Your task to perform on an android device: Do I have any events tomorrow? Image 0: 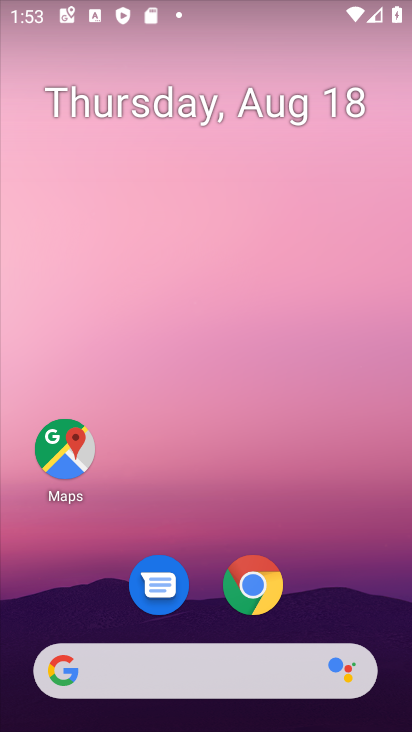
Step 0: drag from (315, 574) to (305, 5)
Your task to perform on an android device: Do I have any events tomorrow? Image 1: 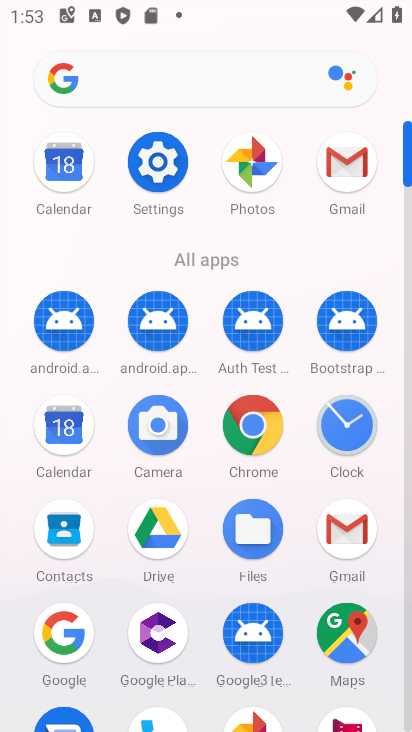
Step 1: click (71, 170)
Your task to perform on an android device: Do I have any events tomorrow? Image 2: 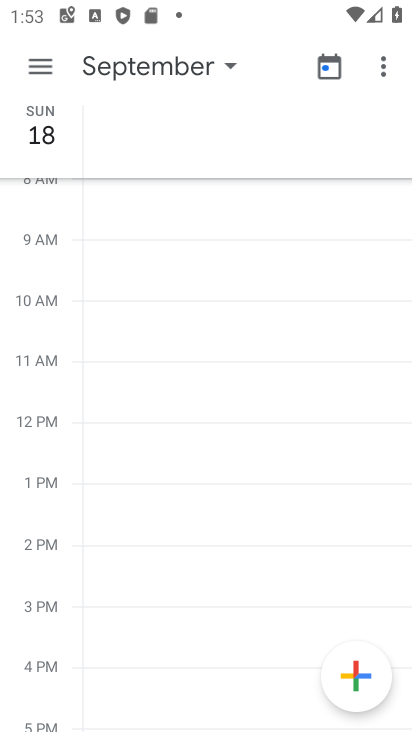
Step 2: click (44, 71)
Your task to perform on an android device: Do I have any events tomorrow? Image 3: 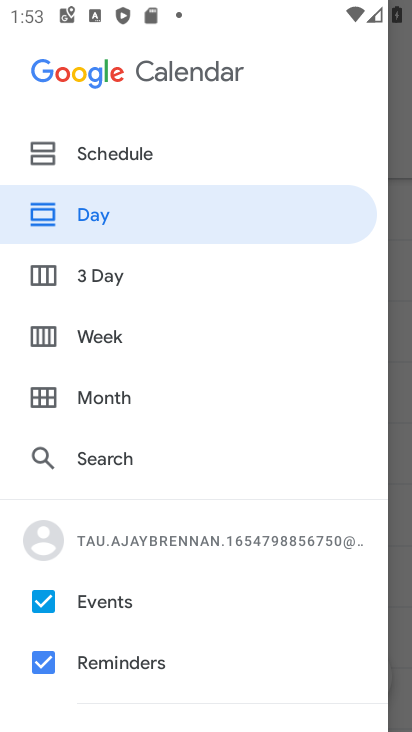
Step 3: click (49, 400)
Your task to perform on an android device: Do I have any events tomorrow? Image 4: 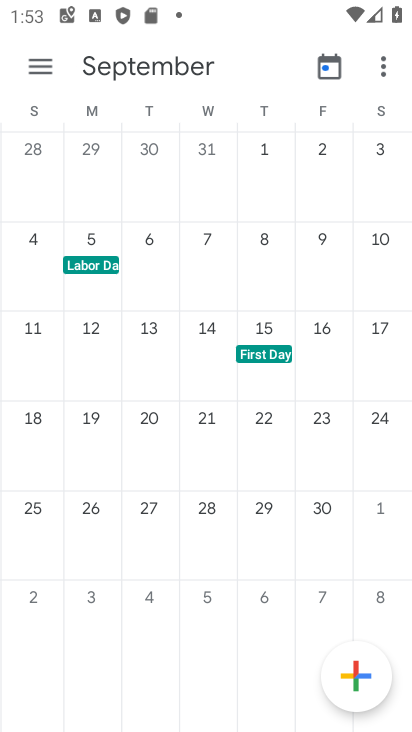
Step 4: drag from (46, 284) to (410, 301)
Your task to perform on an android device: Do I have any events tomorrow? Image 5: 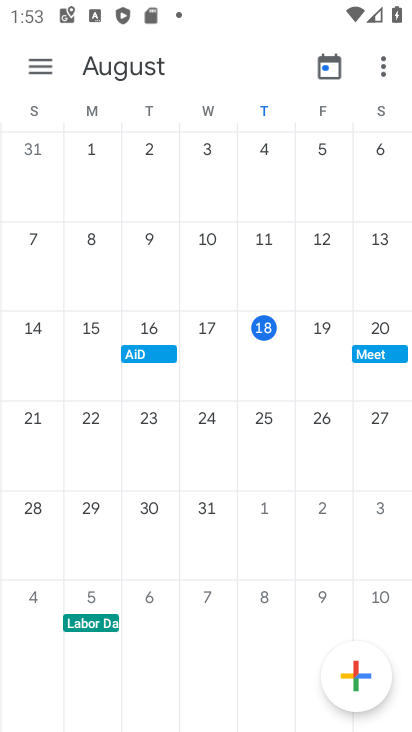
Step 5: click (324, 323)
Your task to perform on an android device: Do I have any events tomorrow? Image 6: 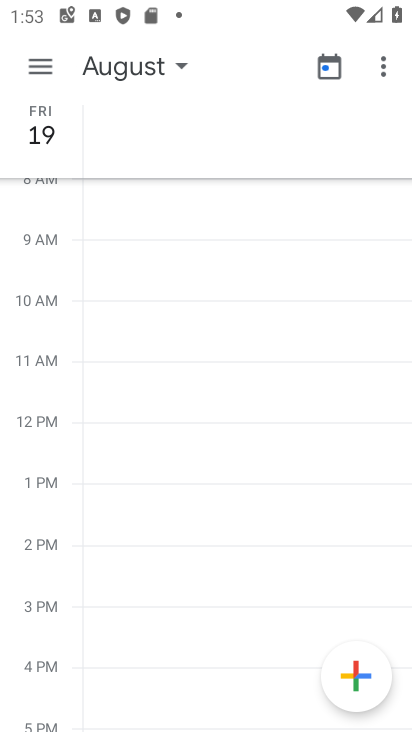
Step 6: task complete